Your task to perform on an android device: Go to ESPN.com Image 0: 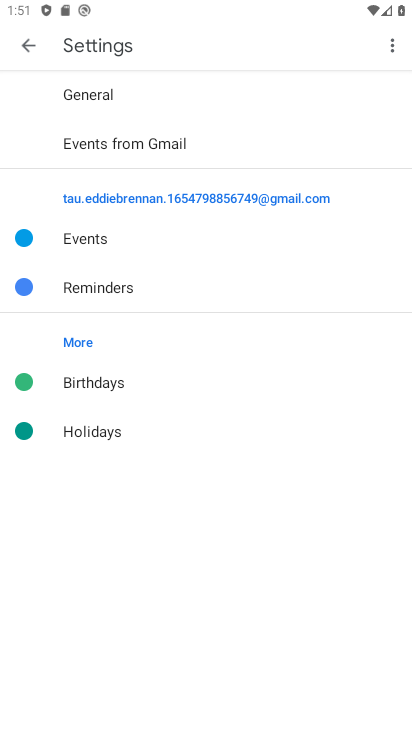
Step 0: press home button
Your task to perform on an android device: Go to ESPN.com Image 1: 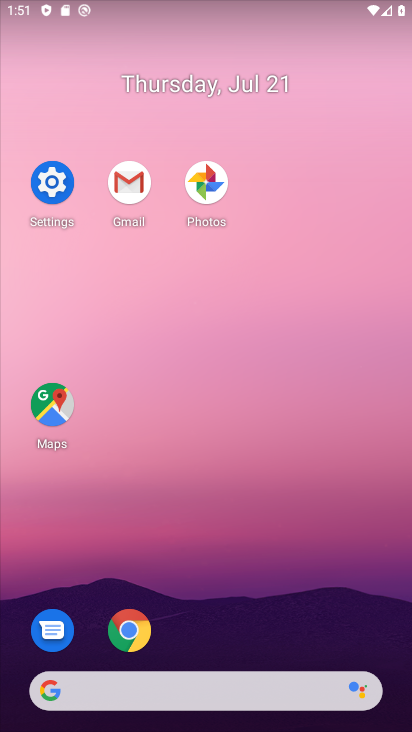
Step 1: click (136, 630)
Your task to perform on an android device: Go to ESPN.com Image 2: 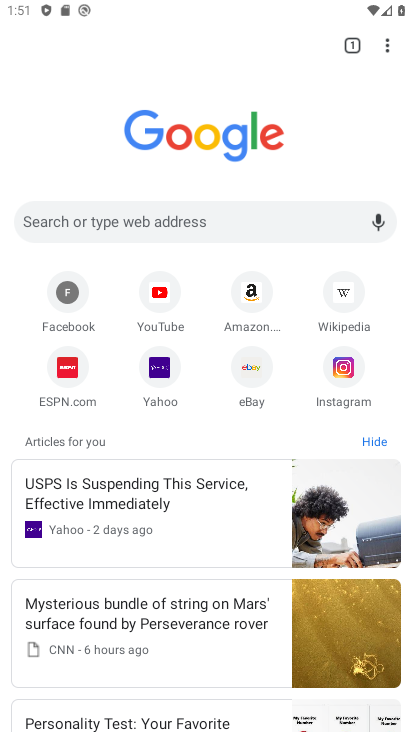
Step 2: click (73, 383)
Your task to perform on an android device: Go to ESPN.com Image 3: 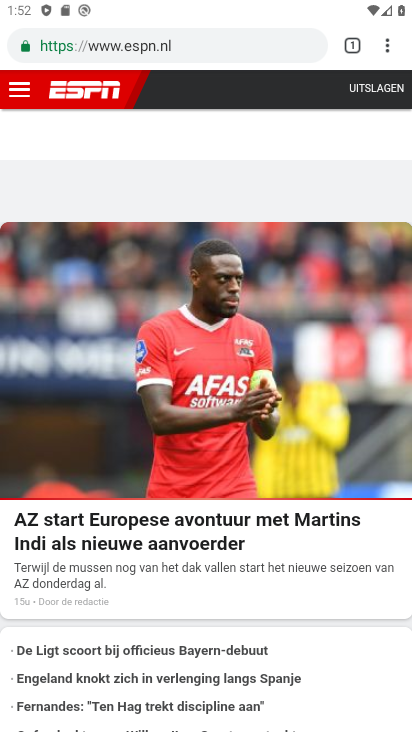
Step 3: task complete